Your task to perform on an android device: Go to display settings Image 0: 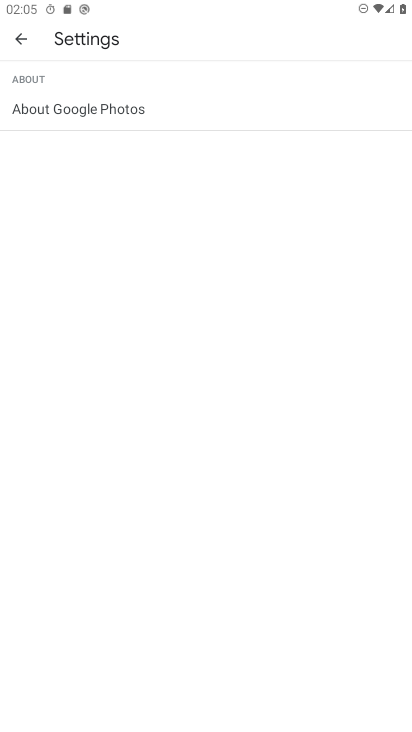
Step 0: press home button
Your task to perform on an android device: Go to display settings Image 1: 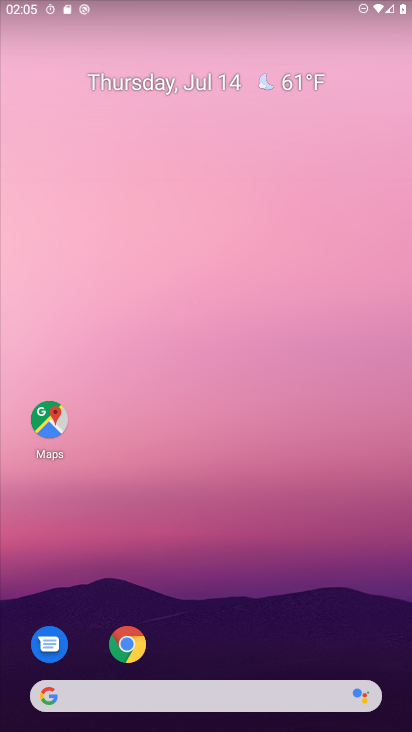
Step 1: drag from (317, 596) to (259, 89)
Your task to perform on an android device: Go to display settings Image 2: 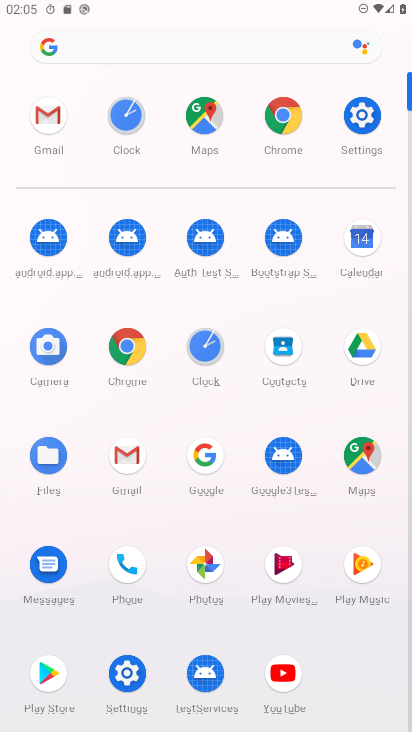
Step 2: click (356, 118)
Your task to perform on an android device: Go to display settings Image 3: 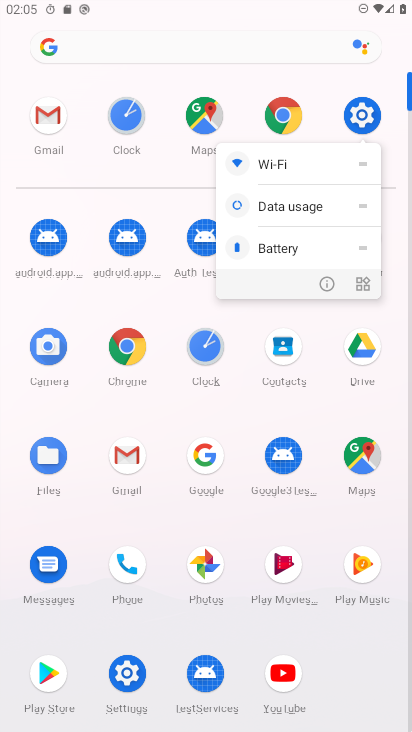
Step 3: click (365, 111)
Your task to perform on an android device: Go to display settings Image 4: 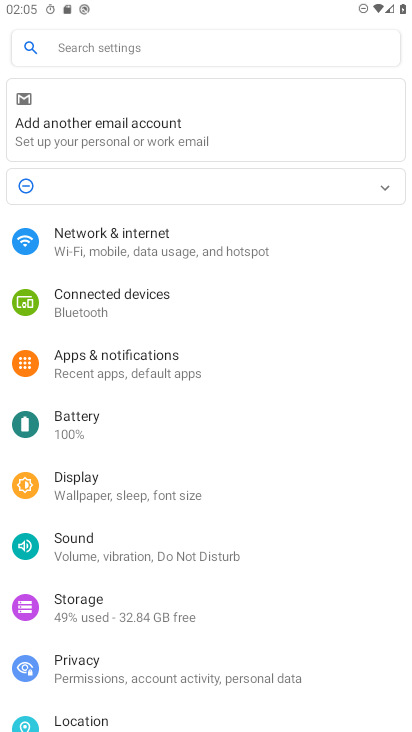
Step 4: click (116, 487)
Your task to perform on an android device: Go to display settings Image 5: 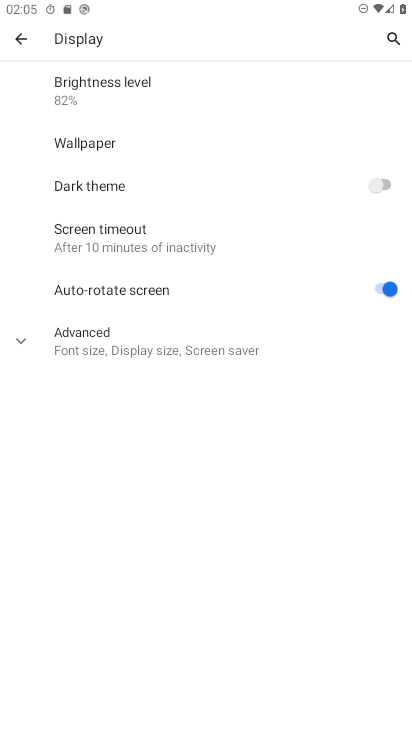
Step 5: task complete